Your task to perform on an android device: change the clock display to analog Image 0: 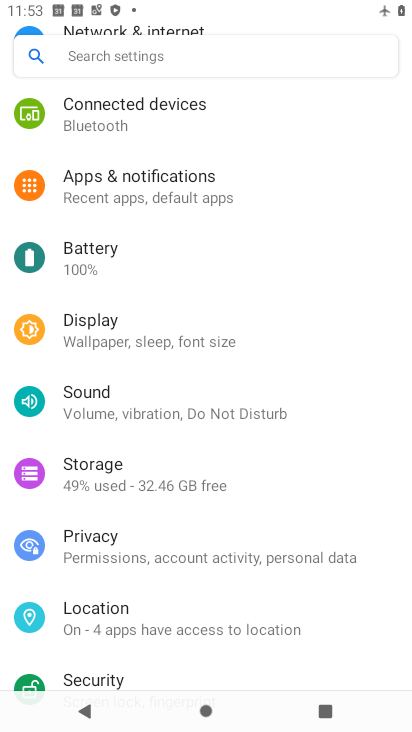
Step 0: press home button
Your task to perform on an android device: change the clock display to analog Image 1: 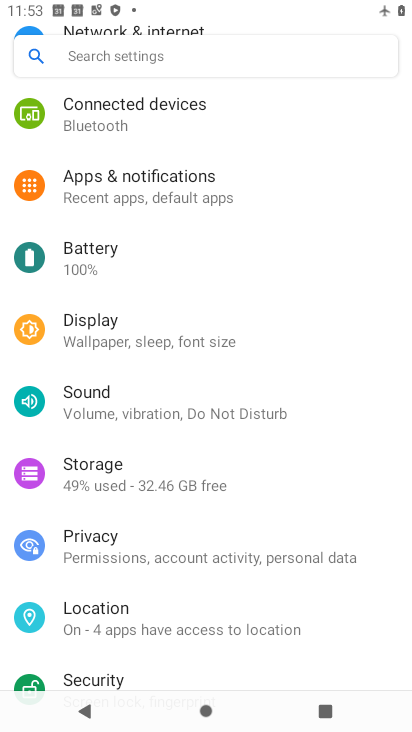
Step 1: press home button
Your task to perform on an android device: change the clock display to analog Image 2: 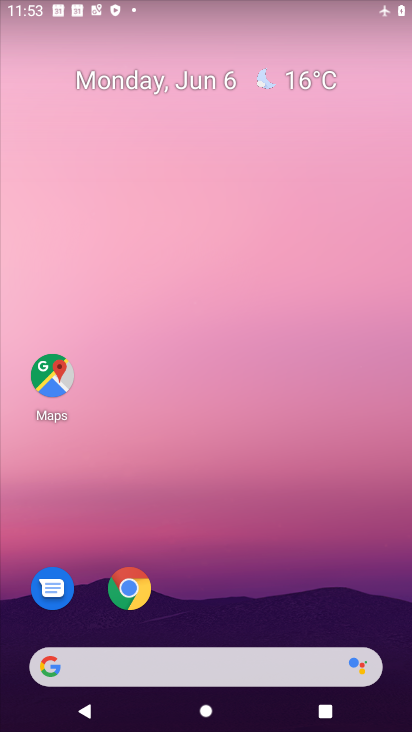
Step 2: drag from (224, 628) to (267, 131)
Your task to perform on an android device: change the clock display to analog Image 3: 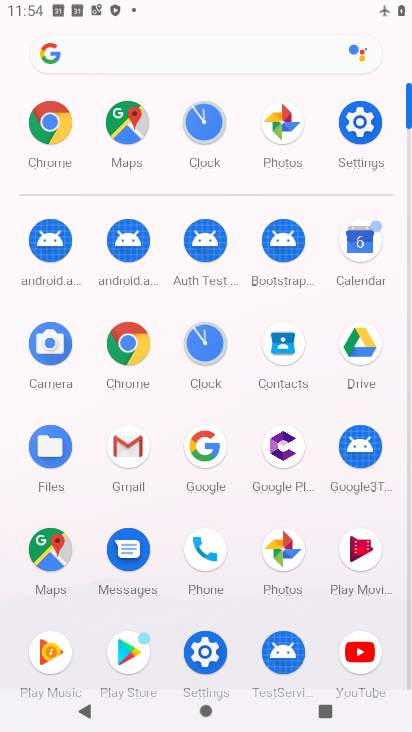
Step 3: click (200, 348)
Your task to perform on an android device: change the clock display to analog Image 4: 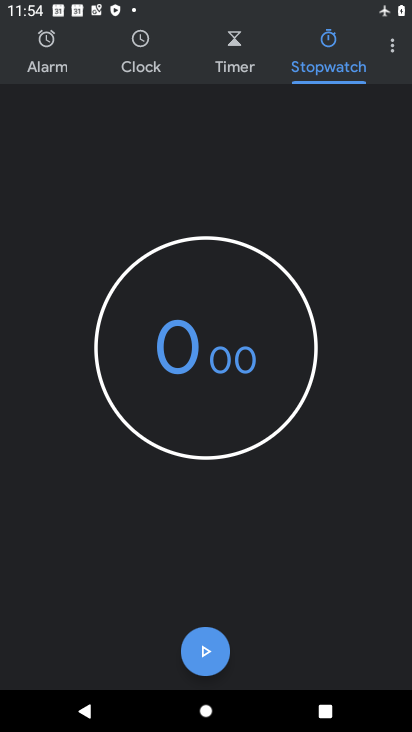
Step 4: click (385, 30)
Your task to perform on an android device: change the clock display to analog Image 5: 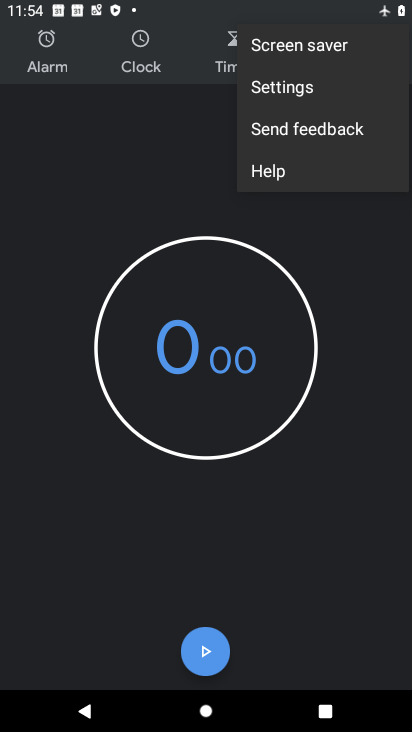
Step 5: click (300, 79)
Your task to perform on an android device: change the clock display to analog Image 6: 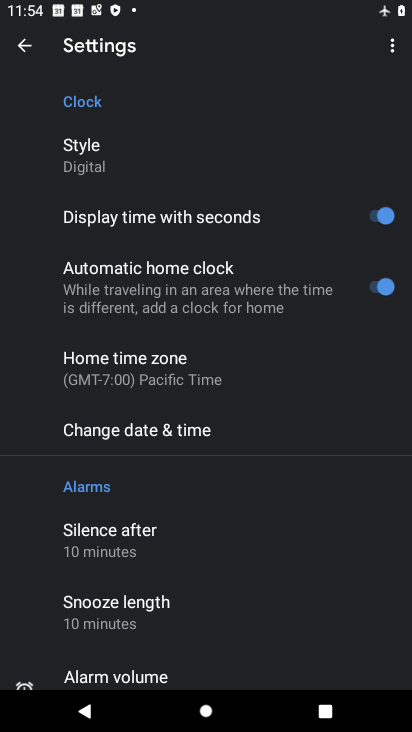
Step 6: click (110, 139)
Your task to perform on an android device: change the clock display to analog Image 7: 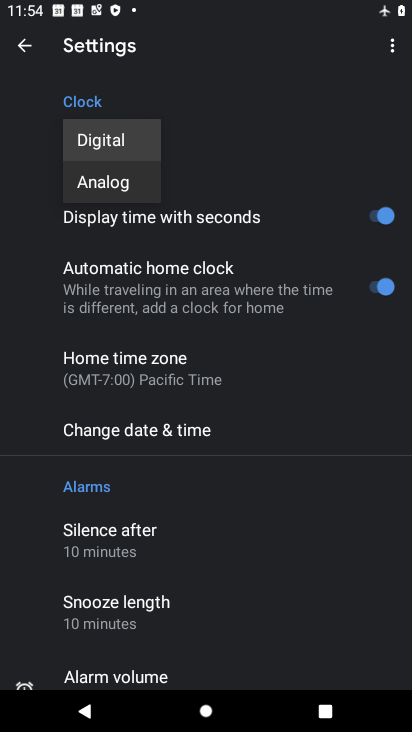
Step 7: click (113, 188)
Your task to perform on an android device: change the clock display to analog Image 8: 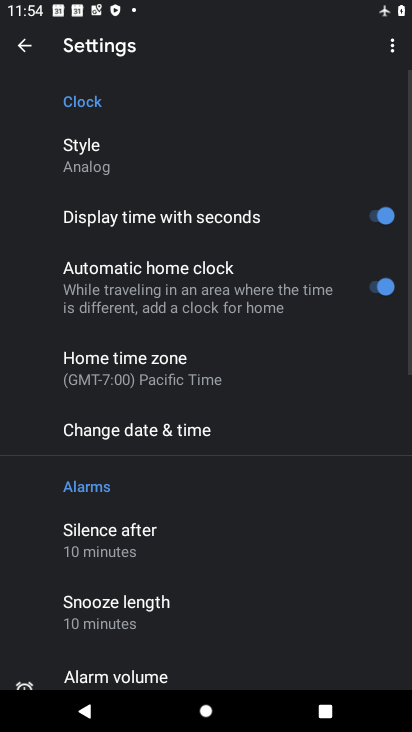
Step 8: task complete